Your task to perform on an android device: Go to internet settings Image 0: 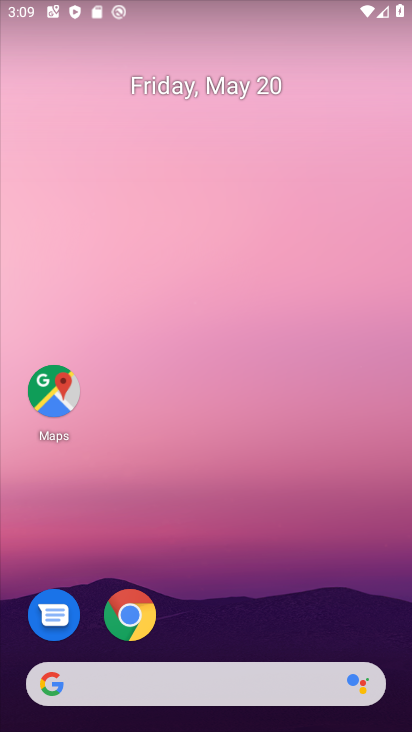
Step 0: drag from (318, 555) to (302, 224)
Your task to perform on an android device: Go to internet settings Image 1: 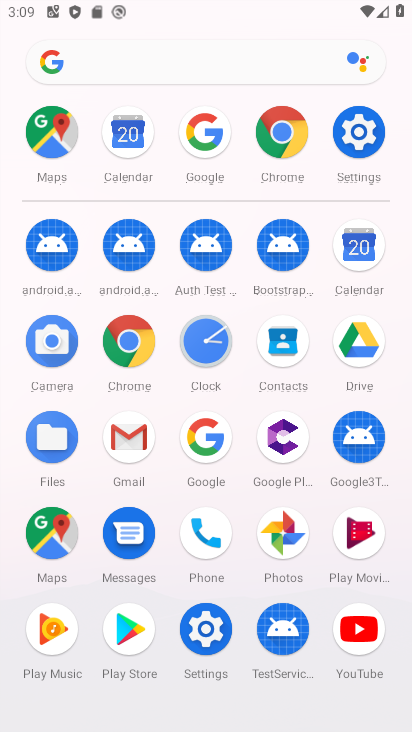
Step 1: click (352, 132)
Your task to perform on an android device: Go to internet settings Image 2: 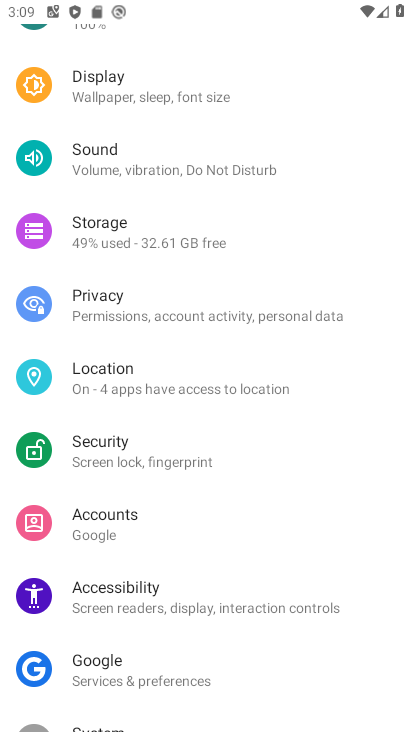
Step 2: drag from (206, 163) to (219, 430)
Your task to perform on an android device: Go to internet settings Image 3: 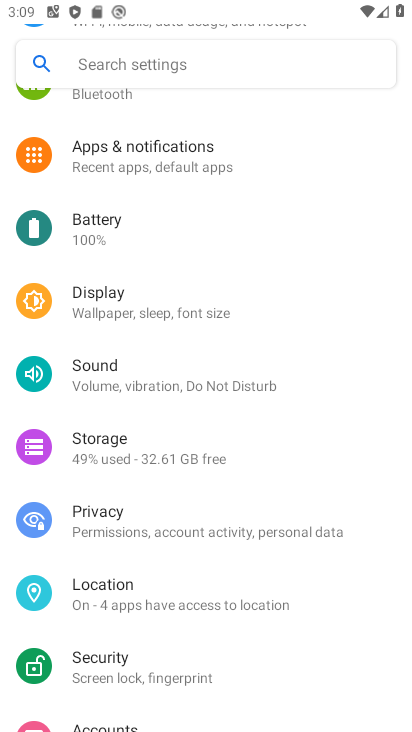
Step 3: drag from (196, 153) to (196, 568)
Your task to perform on an android device: Go to internet settings Image 4: 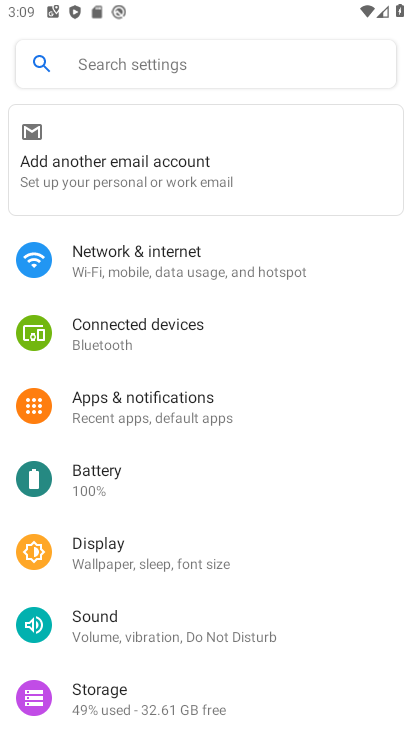
Step 4: click (214, 244)
Your task to perform on an android device: Go to internet settings Image 5: 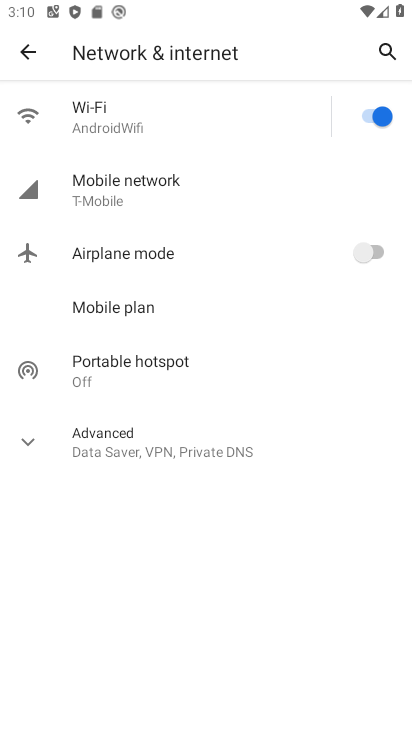
Step 5: task complete